Your task to perform on an android device: Open the calendar app, open the side menu, and click the "Day" option Image 0: 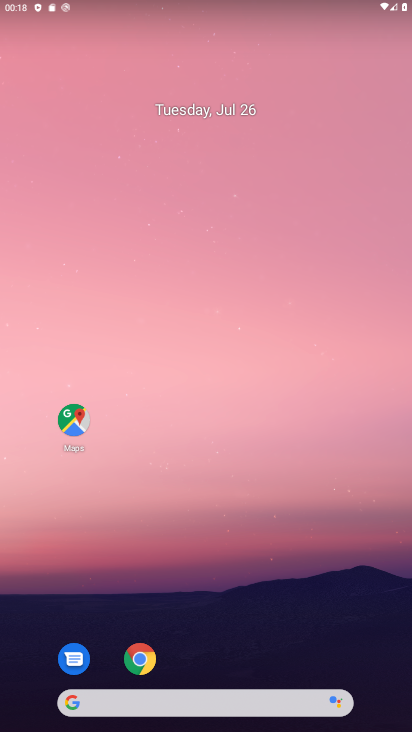
Step 0: drag from (385, 628) to (127, 146)
Your task to perform on an android device: Open the calendar app, open the side menu, and click the "Day" option Image 1: 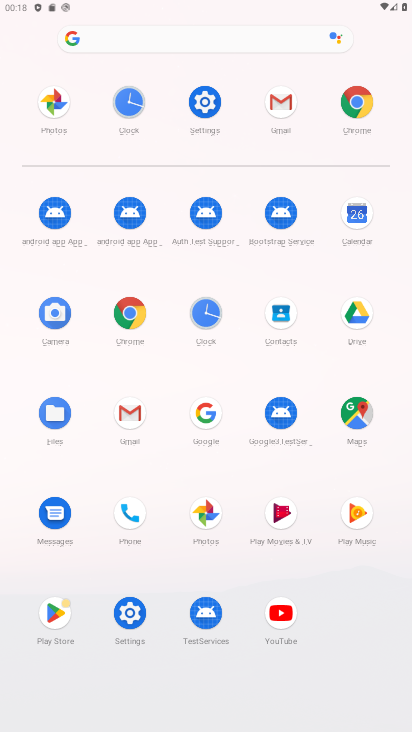
Step 1: click (359, 224)
Your task to perform on an android device: Open the calendar app, open the side menu, and click the "Day" option Image 2: 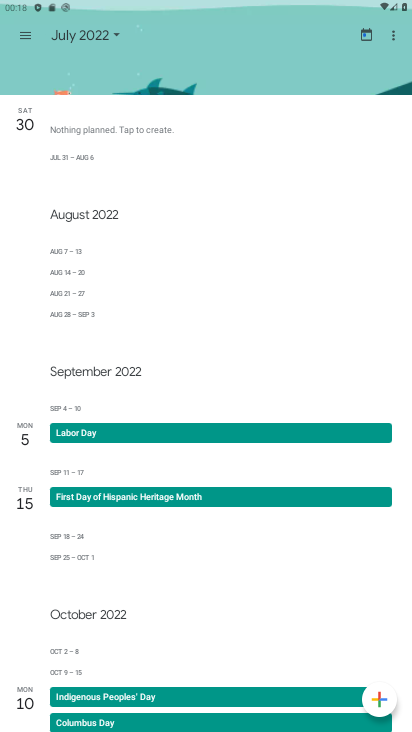
Step 2: click (23, 30)
Your task to perform on an android device: Open the calendar app, open the side menu, and click the "Day" option Image 3: 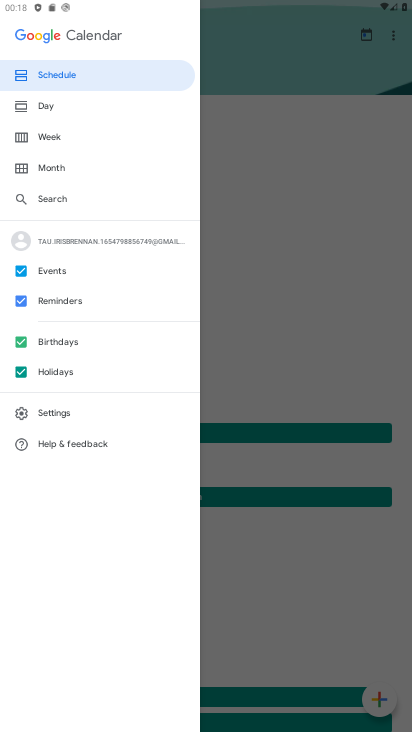
Step 3: click (51, 99)
Your task to perform on an android device: Open the calendar app, open the side menu, and click the "Day" option Image 4: 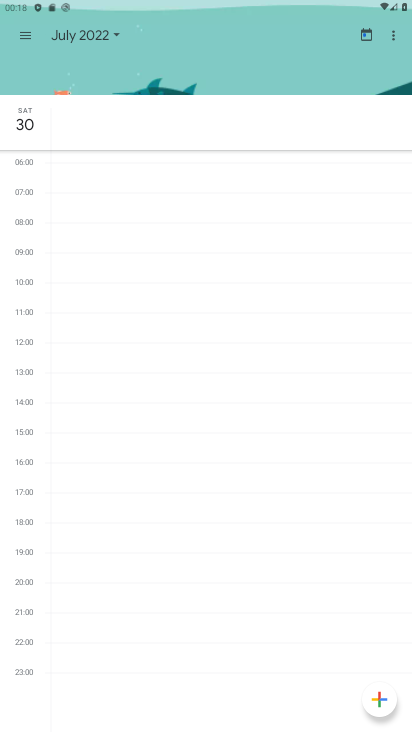
Step 4: task complete